Your task to perform on an android device: check google app version Image 0: 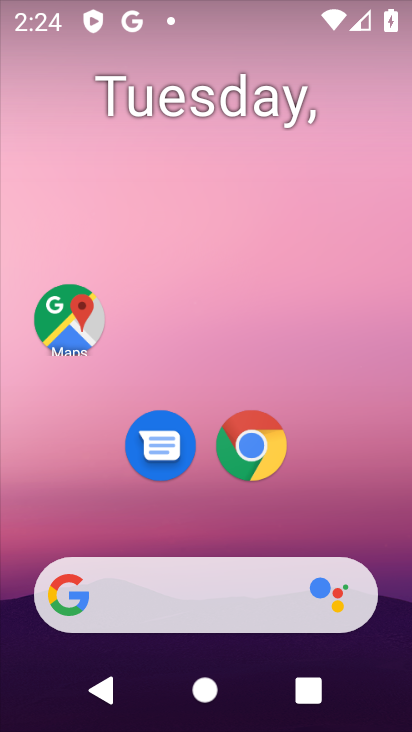
Step 0: drag from (256, 642) to (37, 726)
Your task to perform on an android device: check google app version Image 1: 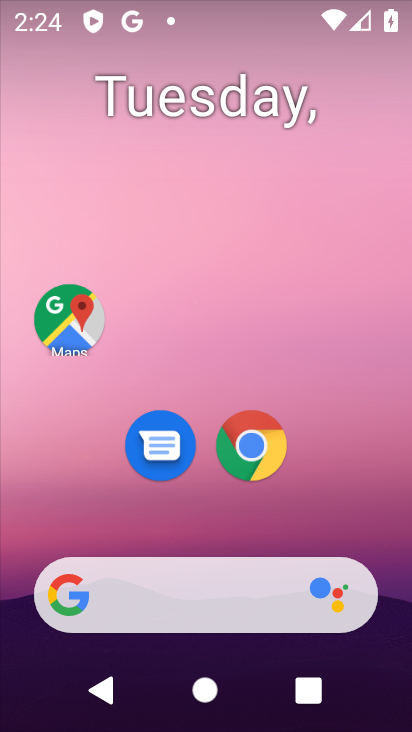
Step 1: drag from (293, 696) to (199, 157)
Your task to perform on an android device: check google app version Image 2: 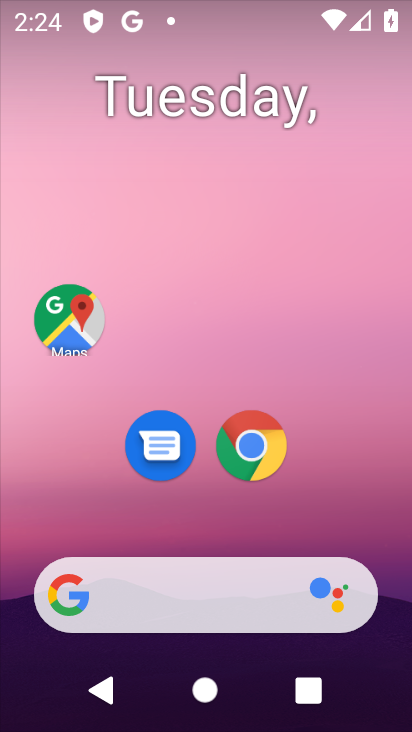
Step 2: drag from (258, 688) to (187, 232)
Your task to perform on an android device: check google app version Image 3: 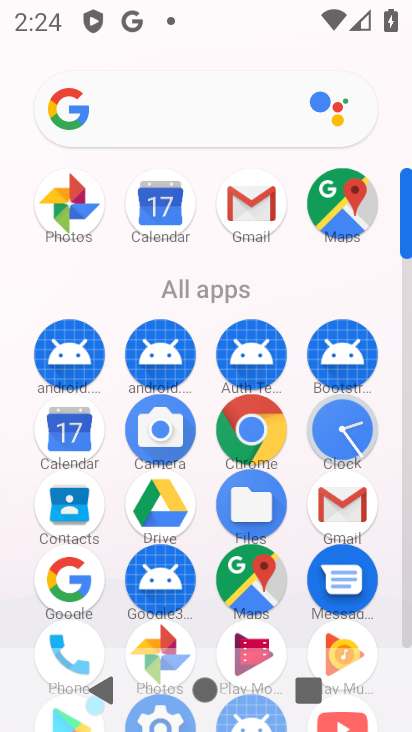
Step 3: click (74, 576)
Your task to perform on an android device: check google app version Image 4: 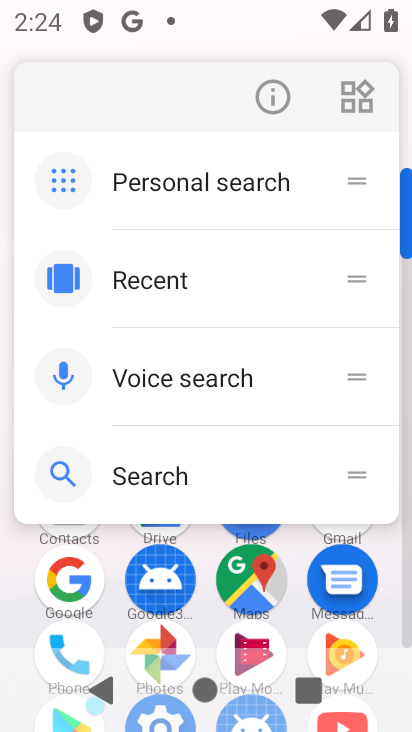
Step 4: click (271, 96)
Your task to perform on an android device: check google app version Image 5: 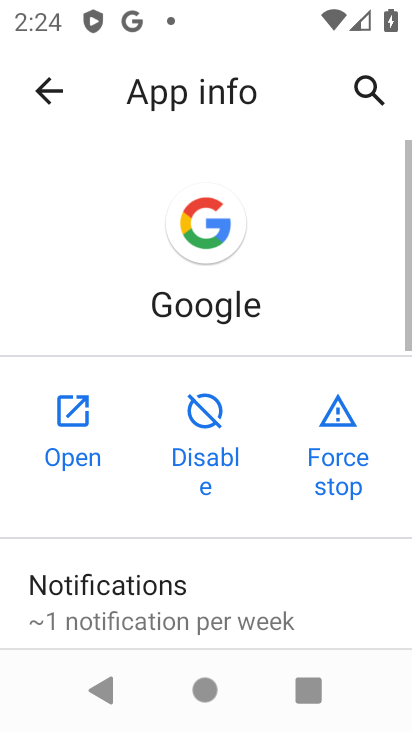
Step 5: drag from (276, 562) to (150, 142)
Your task to perform on an android device: check google app version Image 6: 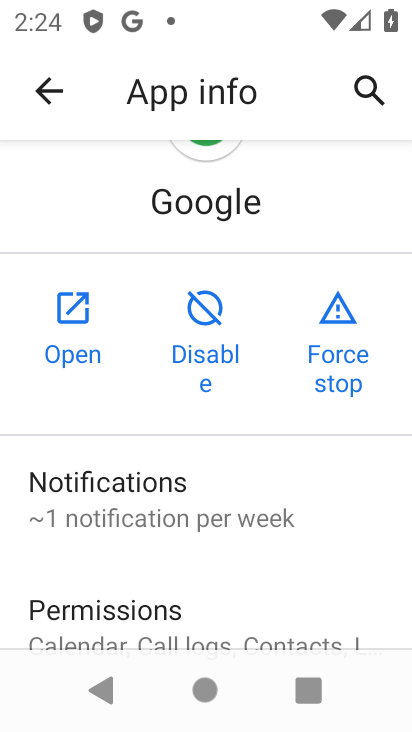
Step 6: drag from (252, 599) to (270, 118)
Your task to perform on an android device: check google app version Image 7: 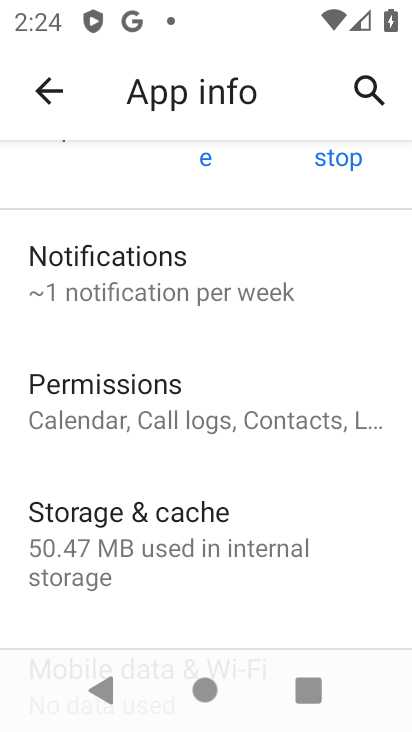
Step 7: drag from (240, 376) to (186, 19)
Your task to perform on an android device: check google app version Image 8: 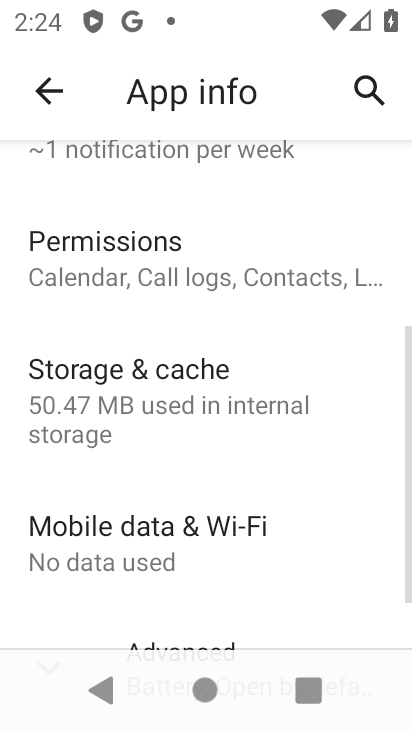
Step 8: drag from (235, 610) to (154, 19)
Your task to perform on an android device: check google app version Image 9: 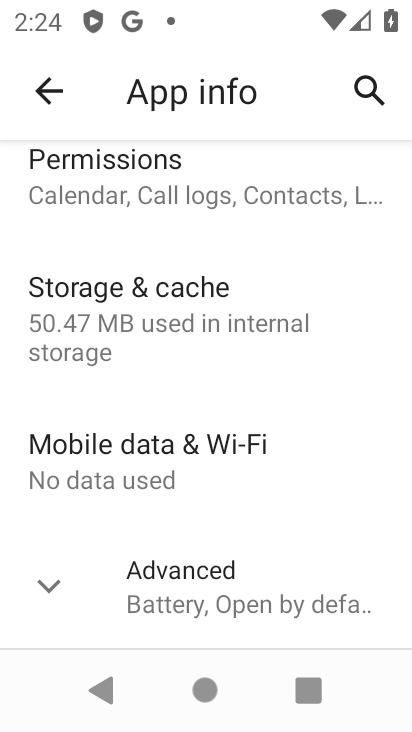
Step 9: click (243, 613)
Your task to perform on an android device: check google app version Image 10: 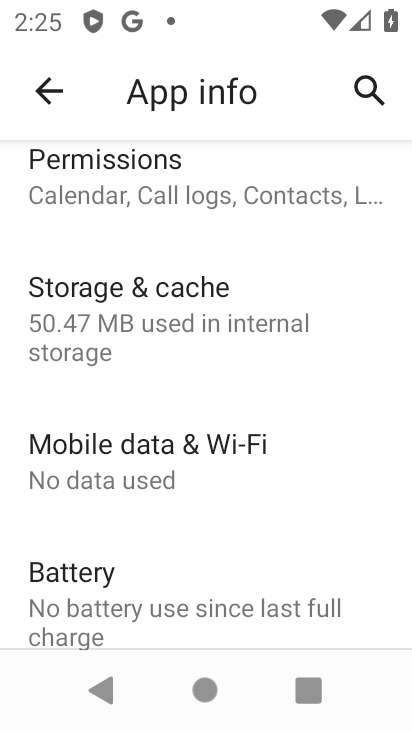
Step 10: task complete